Your task to perform on an android device: Go to CNN.com Image 0: 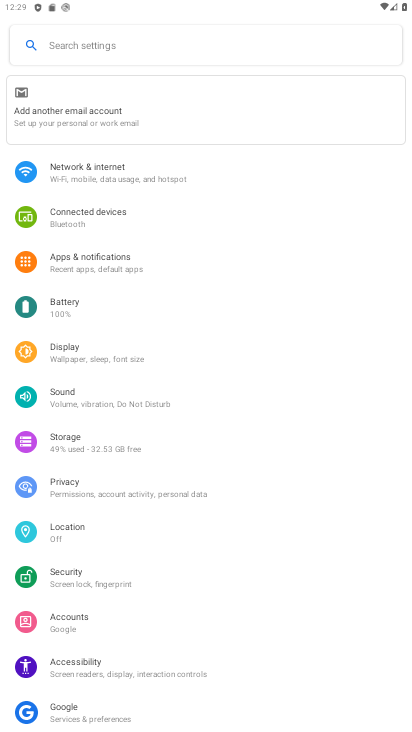
Step 0: press home button
Your task to perform on an android device: Go to CNN.com Image 1: 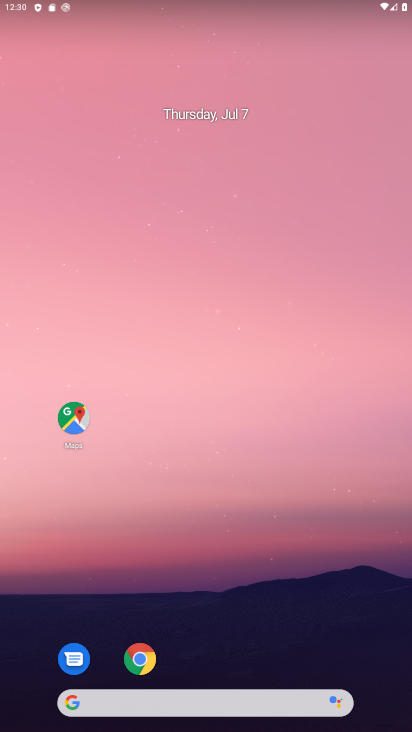
Step 1: click (138, 660)
Your task to perform on an android device: Go to CNN.com Image 2: 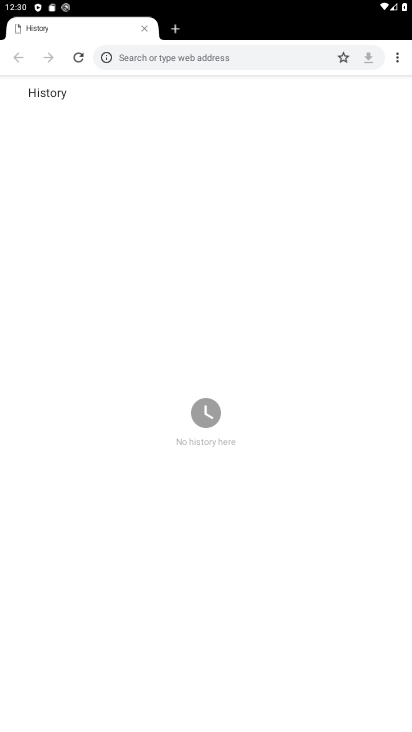
Step 2: click (395, 52)
Your task to perform on an android device: Go to CNN.com Image 3: 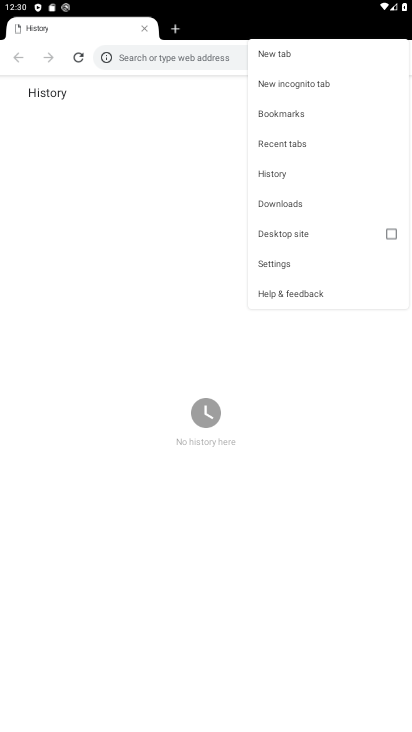
Step 3: click (272, 51)
Your task to perform on an android device: Go to CNN.com Image 4: 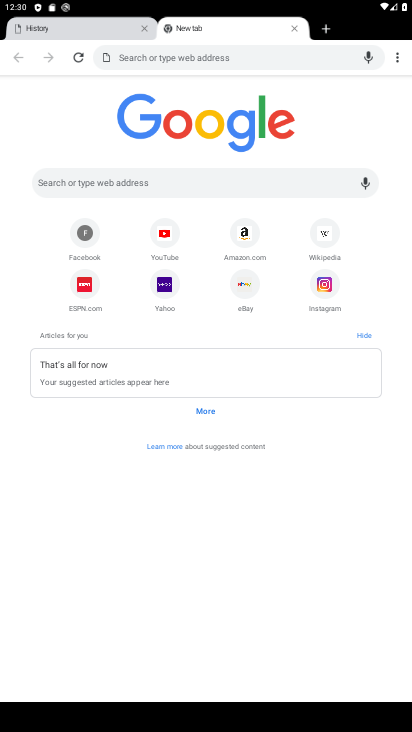
Step 4: click (176, 175)
Your task to perform on an android device: Go to CNN.com Image 5: 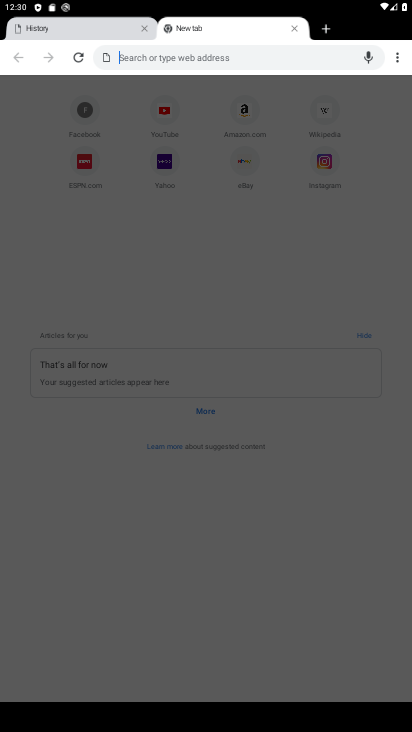
Step 5: type "cnn.com"
Your task to perform on an android device: Go to CNN.com Image 6: 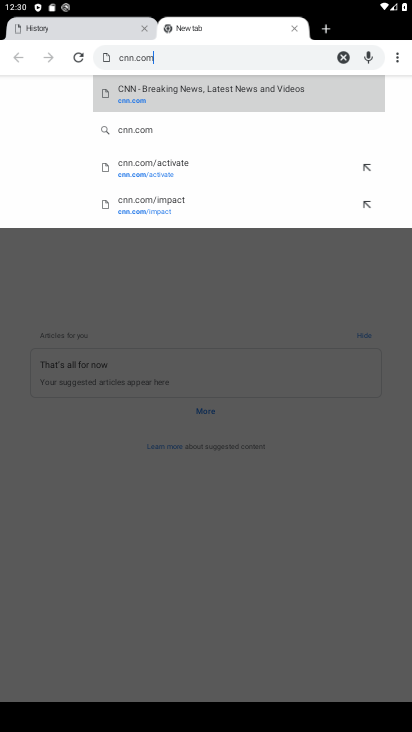
Step 6: click (191, 97)
Your task to perform on an android device: Go to CNN.com Image 7: 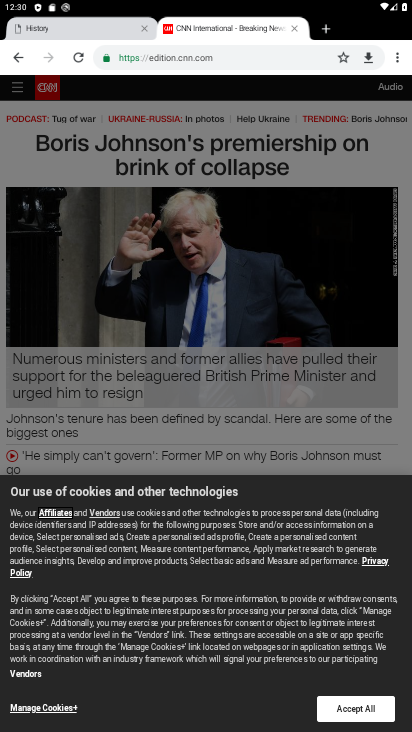
Step 7: task complete